Your task to perform on an android device: change notifications settings Image 0: 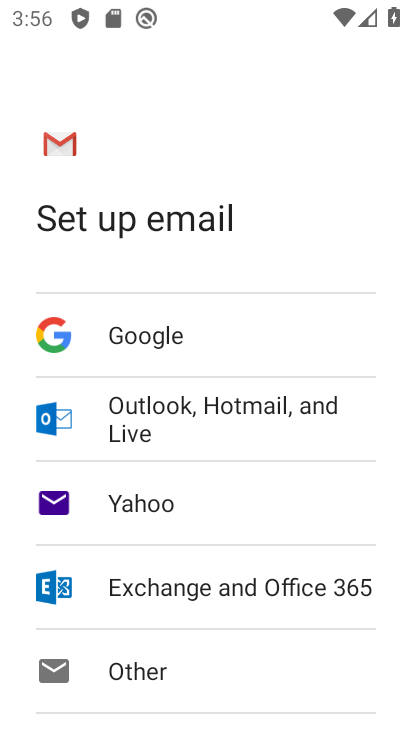
Step 0: press back button
Your task to perform on an android device: change notifications settings Image 1: 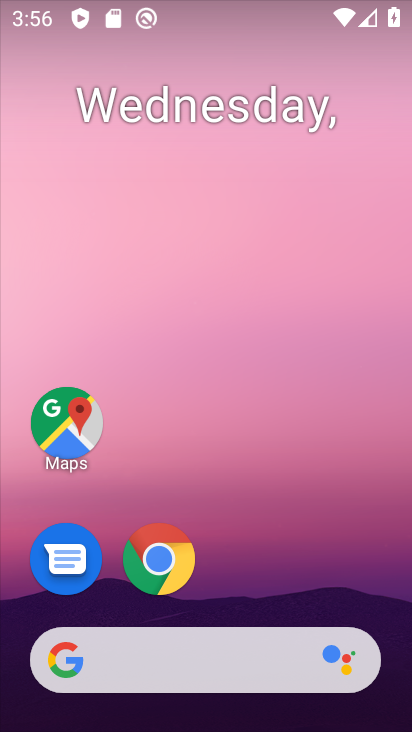
Step 1: drag from (237, 597) to (335, 54)
Your task to perform on an android device: change notifications settings Image 2: 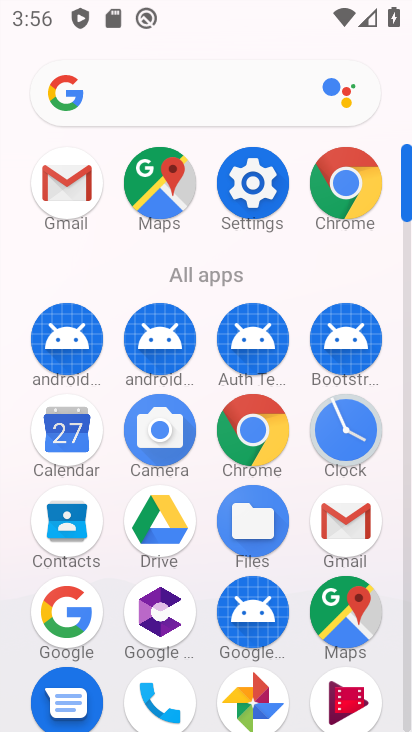
Step 2: click (255, 168)
Your task to perform on an android device: change notifications settings Image 3: 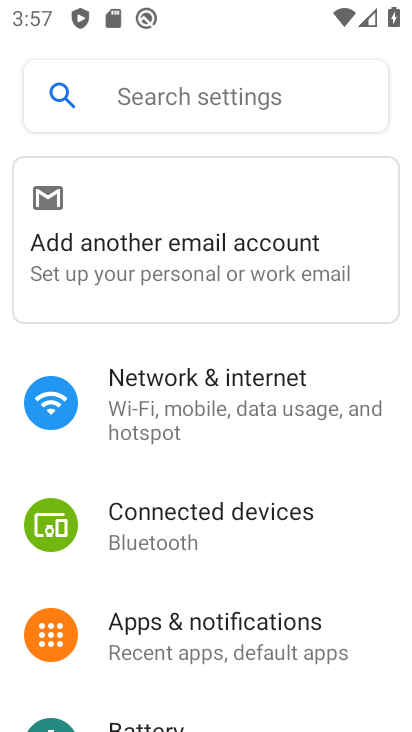
Step 3: click (223, 638)
Your task to perform on an android device: change notifications settings Image 4: 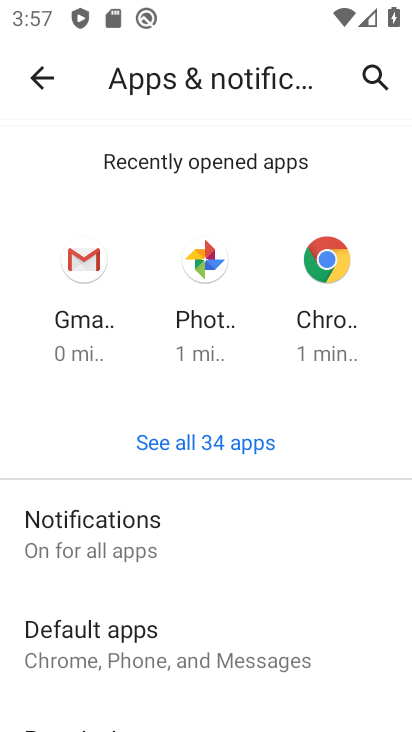
Step 4: click (102, 530)
Your task to perform on an android device: change notifications settings Image 5: 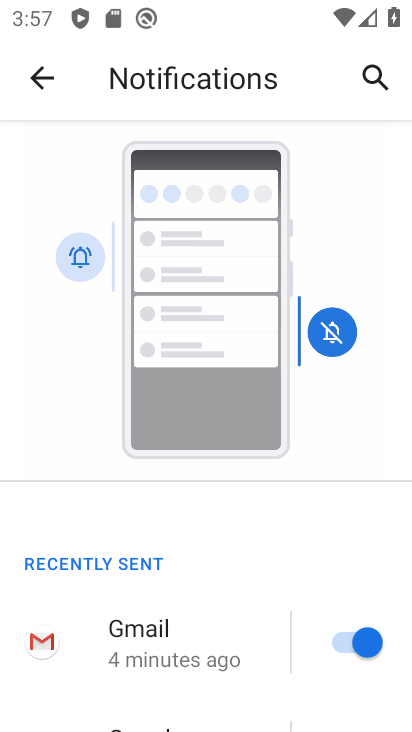
Step 5: drag from (144, 660) to (237, 54)
Your task to perform on an android device: change notifications settings Image 6: 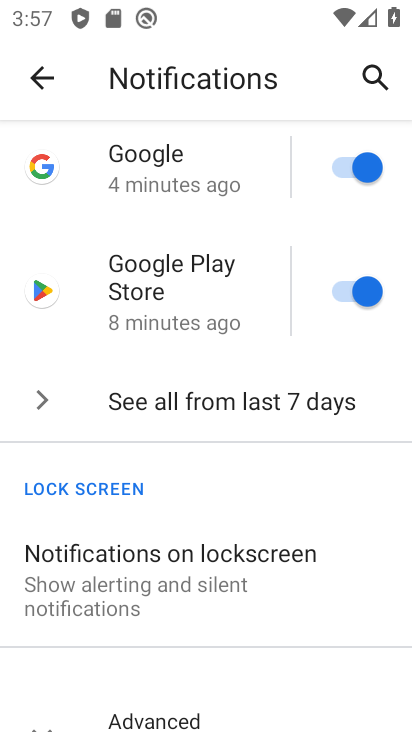
Step 6: drag from (187, 629) to (260, 241)
Your task to perform on an android device: change notifications settings Image 7: 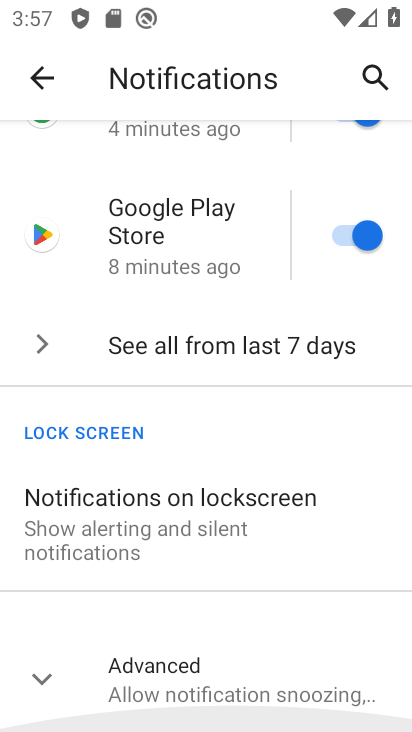
Step 7: click (177, 698)
Your task to perform on an android device: change notifications settings Image 8: 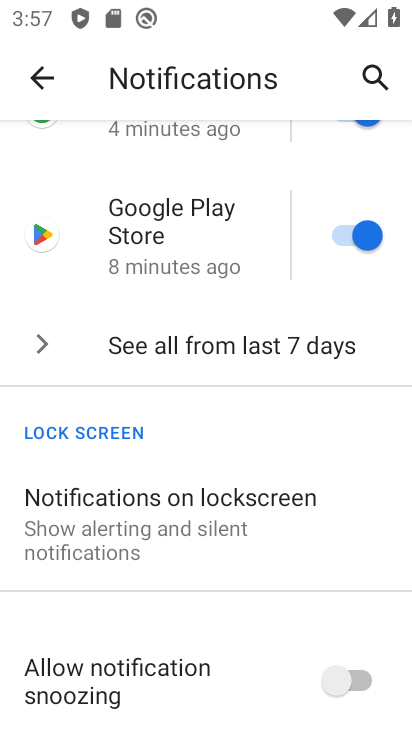
Step 8: click (331, 674)
Your task to perform on an android device: change notifications settings Image 9: 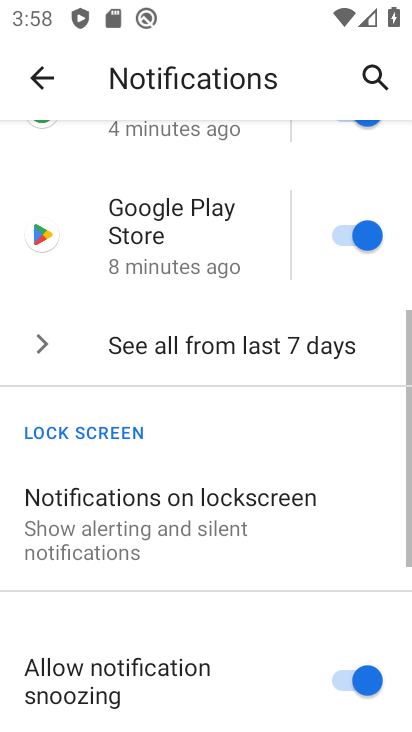
Step 9: task complete